Your task to perform on an android device: Go to Amazon Image 0: 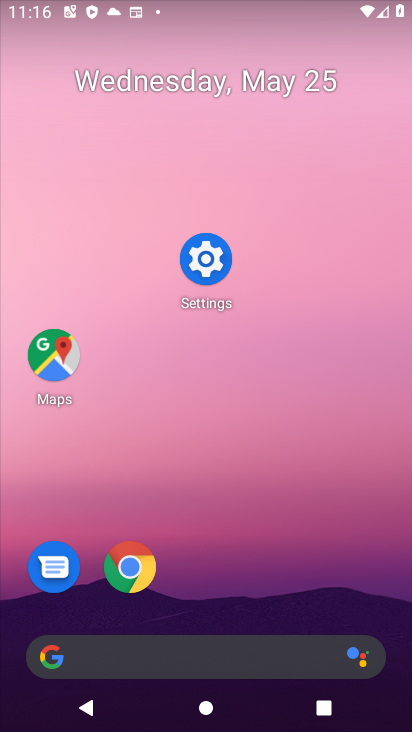
Step 0: click (124, 559)
Your task to perform on an android device: Go to Amazon Image 1: 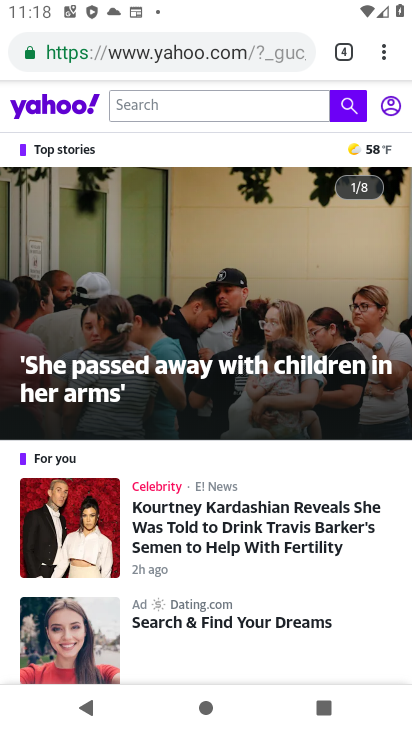
Step 1: click (126, 40)
Your task to perform on an android device: Go to Amazon Image 2: 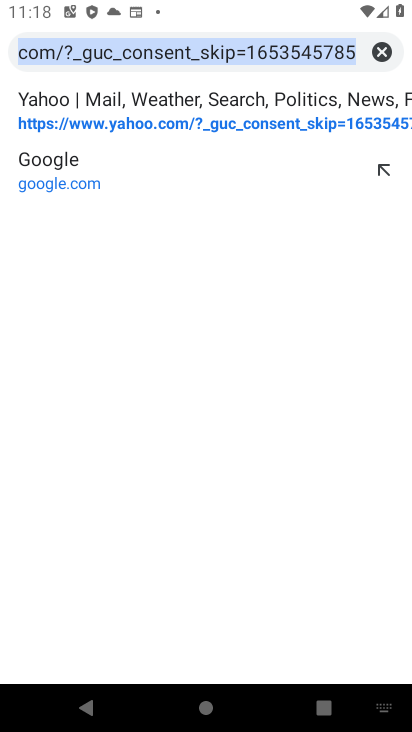
Step 2: type "amazon"
Your task to perform on an android device: Go to Amazon Image 3: 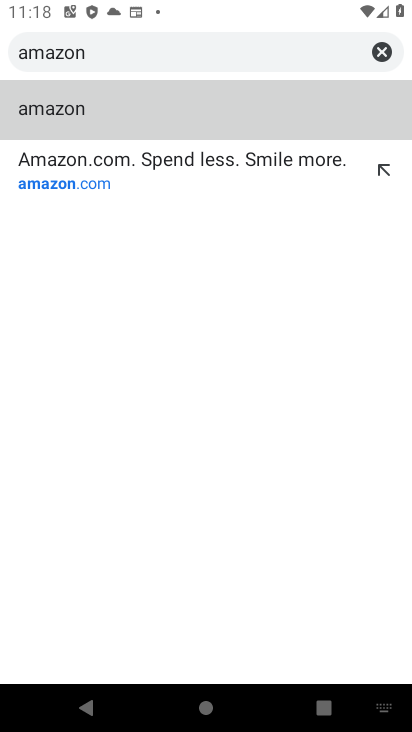
Step 3: click (192, 160)
Your task to perform on an android device: Go to Amazon Image 4: 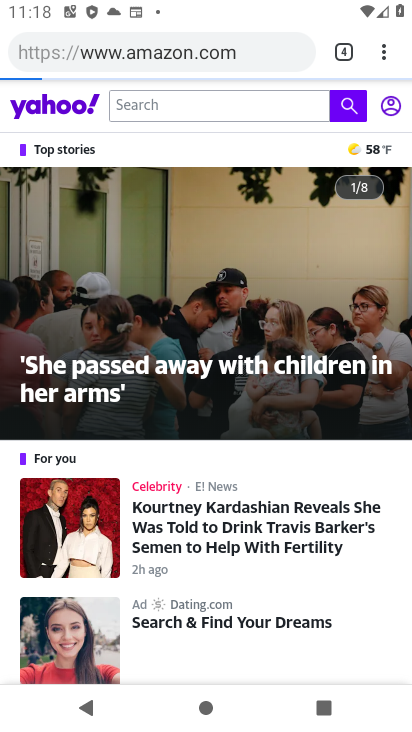
Step 4: task complete